Your task to perform on an android device: change timer sound Image 0: 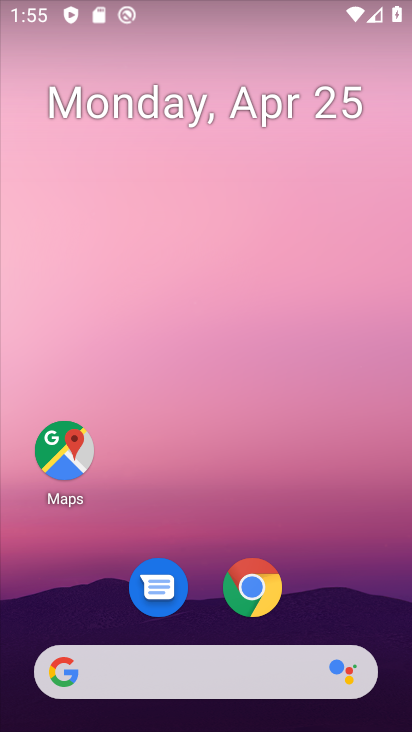
Step 0: drag from (330, 600) to (267, 81)
Your task to perform on an android device: change timer sound Image 1: 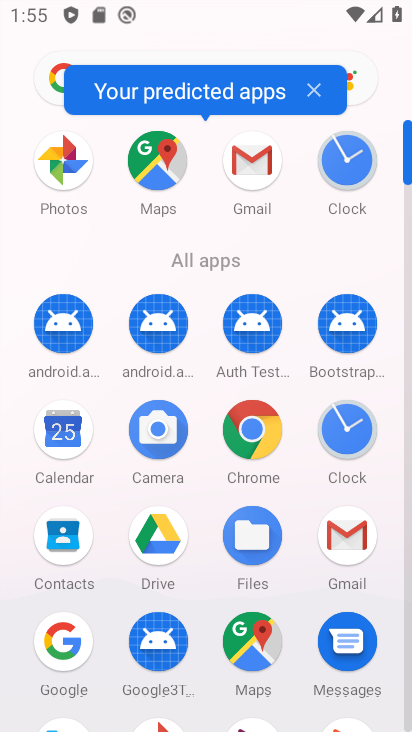
Step 1: click (355, 424)
Your task to perform on an android device: change timer sound Image 2: 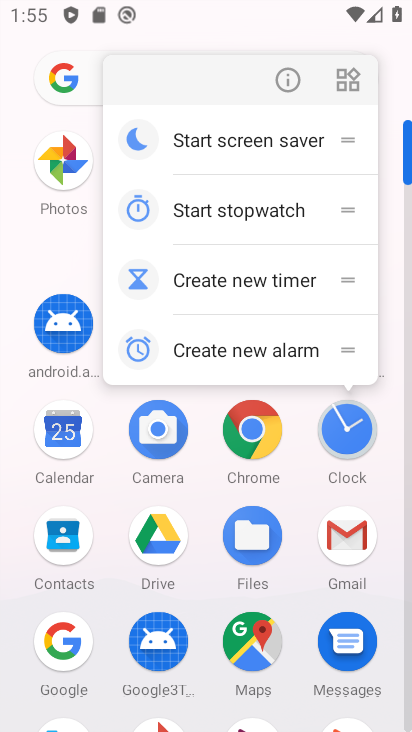
Step 2: click (361, 411)
Your task to perform on an android device: change timer sound Image 3: 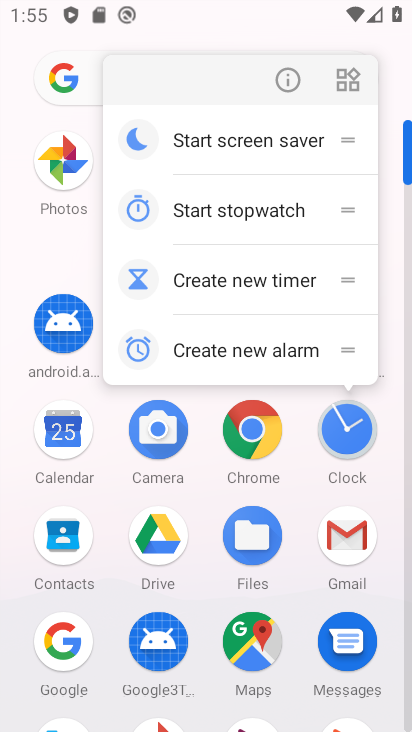
Step 3: click (352, 423)
Your task to perform on an android device: change timer sound Image 4: 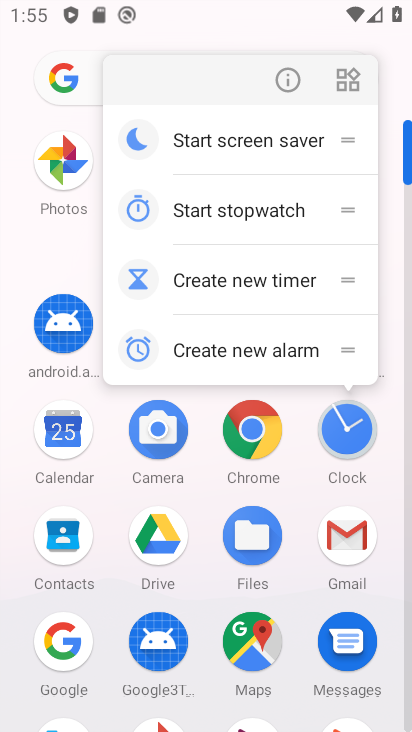
Step 4: click (347, 436)
Your task to perform on an android device: change timer sound Image 5: 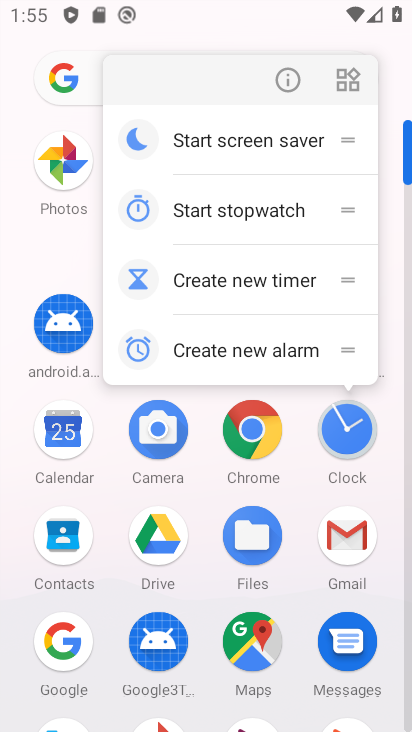
Step 5: click (387, 496)
Your task to perform on an android device: change timer sound Image 6: 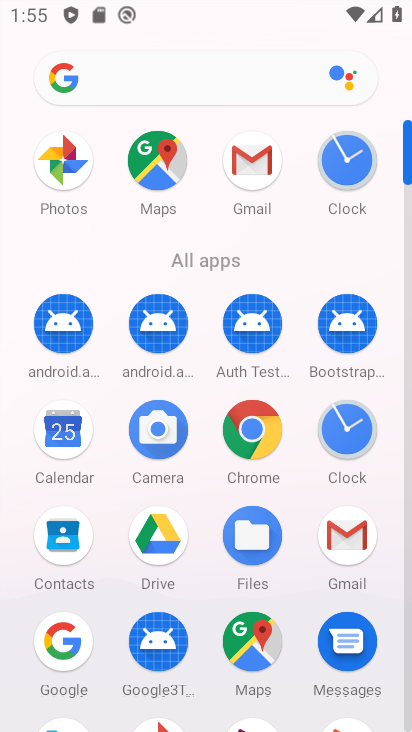
Step 6: click (354, 429)
Your task to perform on an android device: change timer sound Image 7: 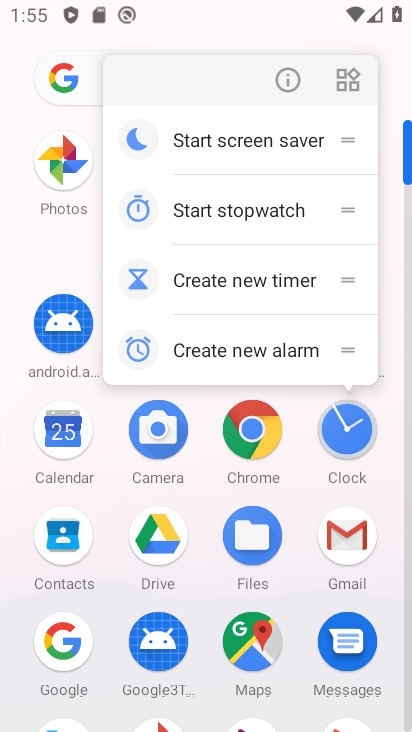
Step 7: click (367, 529)
Your task to perform on an android device: change timer sound Image 8: 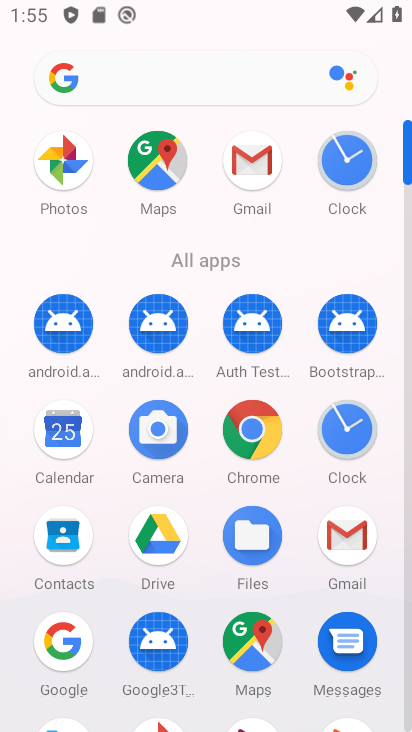
Step 8: click (350, 437)
Your task to perform on an android device: change timer sound Image 9: 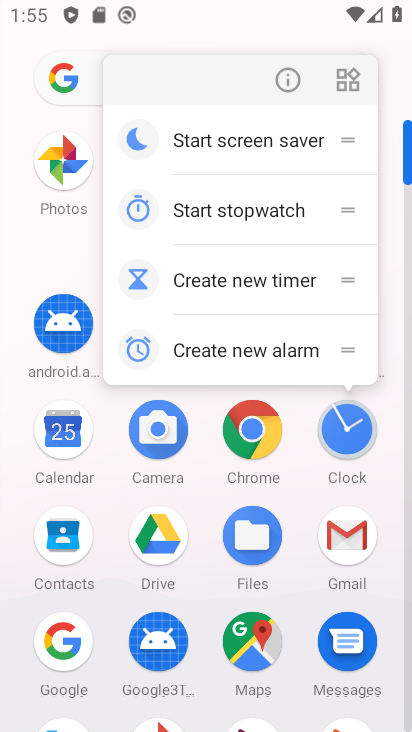
Step 9: click (389, 490)
Your task to perform on an android device: change timer sound Image 10: 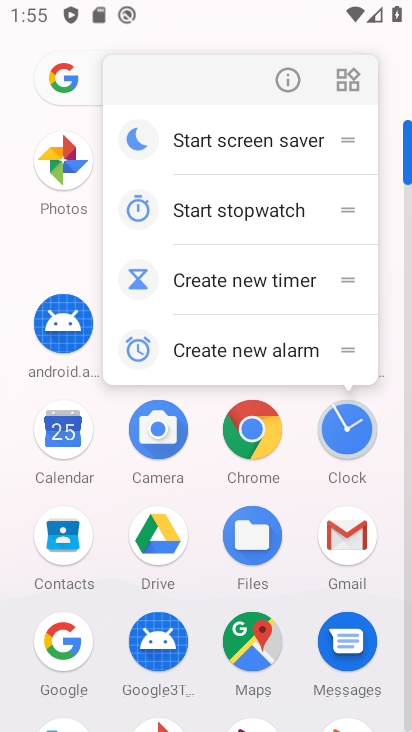
Step 10: click (346, 428)
Your task to perform on an android device: change timer sound Image 11: 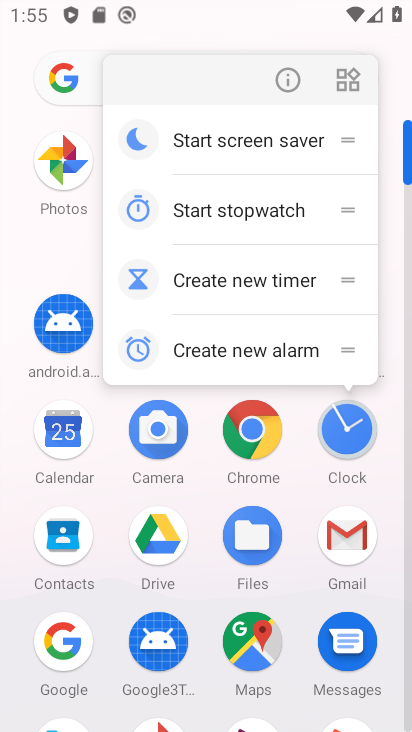
Step 11: click (384, 419)
Your task to perform on an android device: change timer sound Image 12: 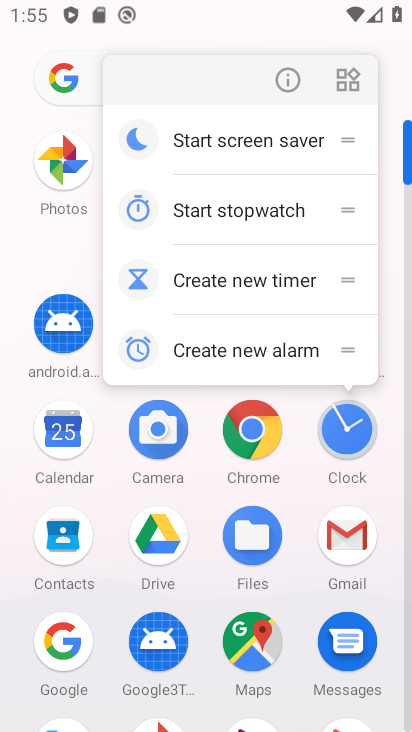
Step 12: click (333, 428)
Your task to perform on an android device: change timer sound Image 13: 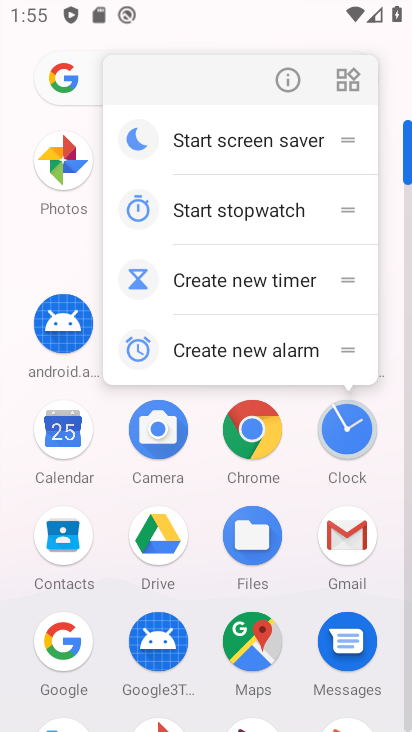
Step 13: click (381, 477)
Your task to perform on an android device: change timer sound Image 14: 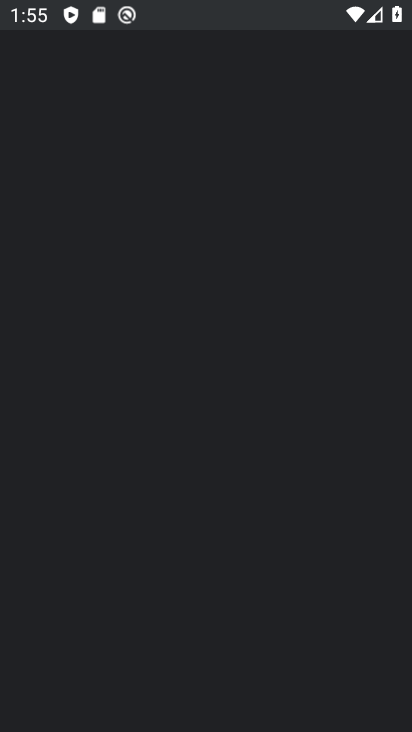
Step 14: click (349, 436)
Your task to perform on an android device: change timer sound Image 15: 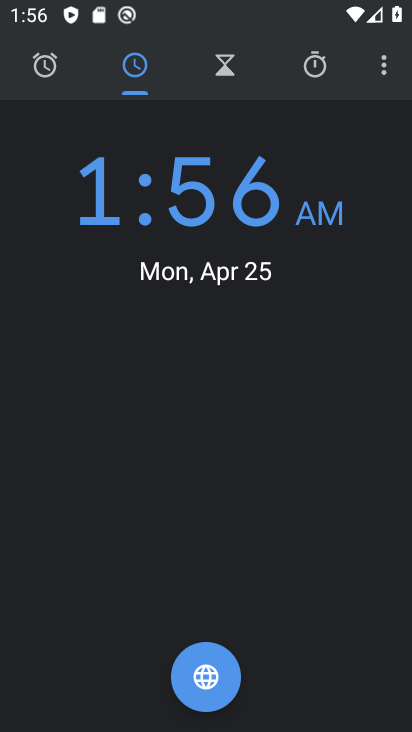
Step 15: click (388, 66)
Your task to perform on an android device: change timer sound Image 16: 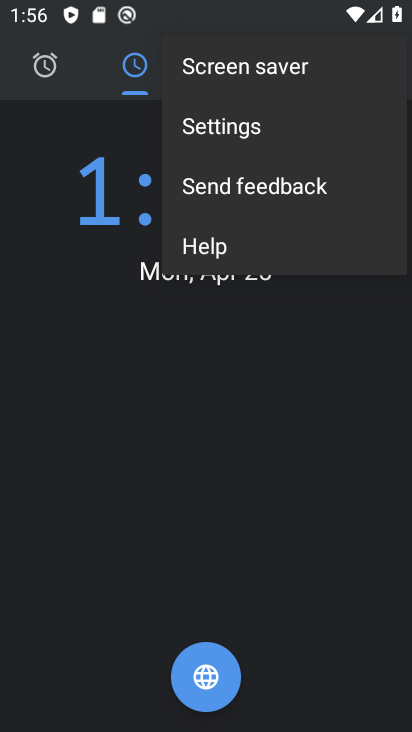
Step 16: click (246, 130)
Your task to perform on an android device: change timer sound Image 17: 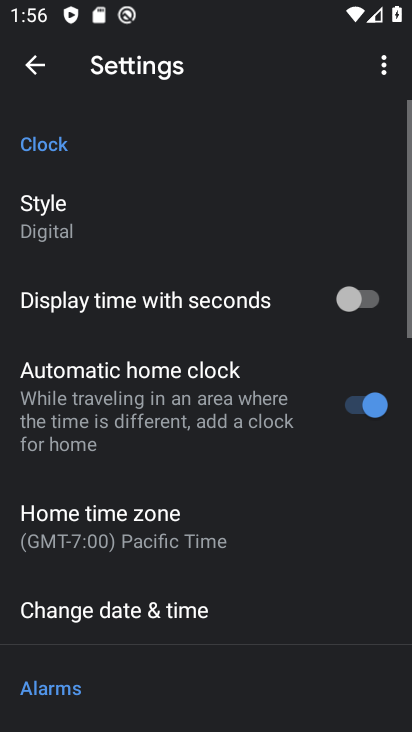
Step 17: drag from (228, 514) to (226, 63)
Your task to perform on an android device: change timer sound Image 18: 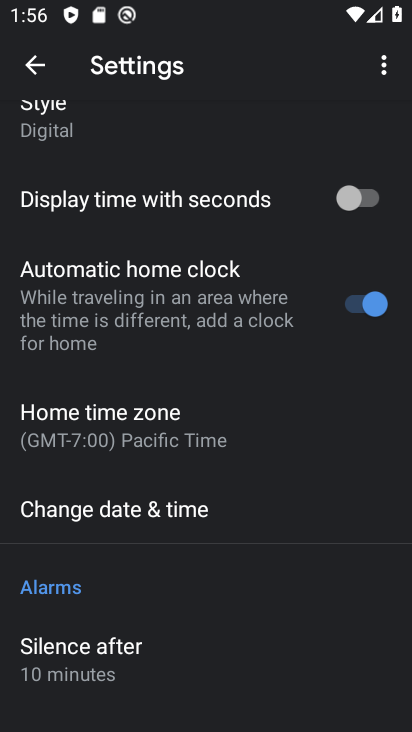
Step 18: drag from (235, 463) to (281, 108)
Your task to perform on an android device: change timer sound Image 19: 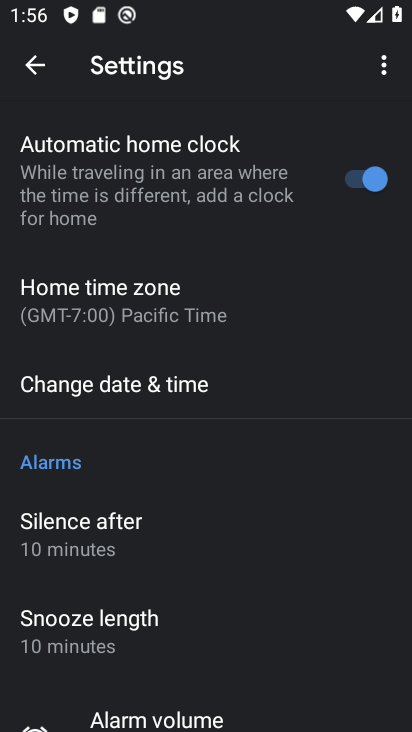
Step 19: drag from (256, 415) to (300, 166)
Your task to perform on an android device: change timer sound Image 20: 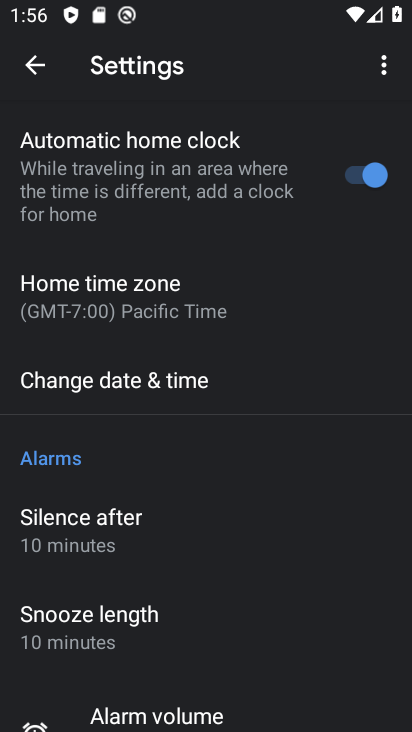
Step 20: drag from (254, 586) to (298, 142)
Your task to perform on an android device: change timer sound Image 21: 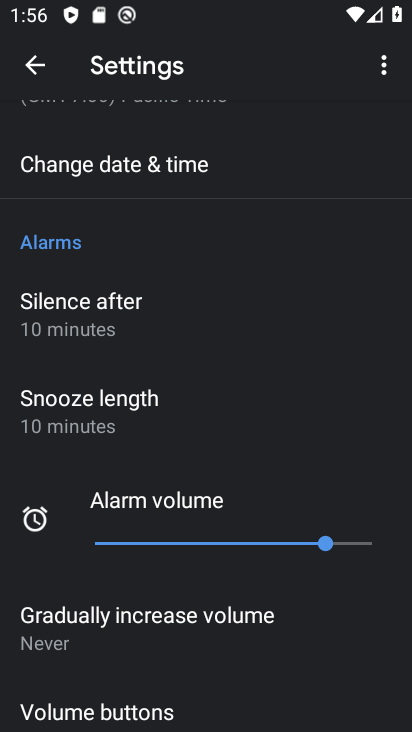
Step 21: drag from (242, 590) to (287, 155)
Your task to perform on an android device: change timer sound Image 22: 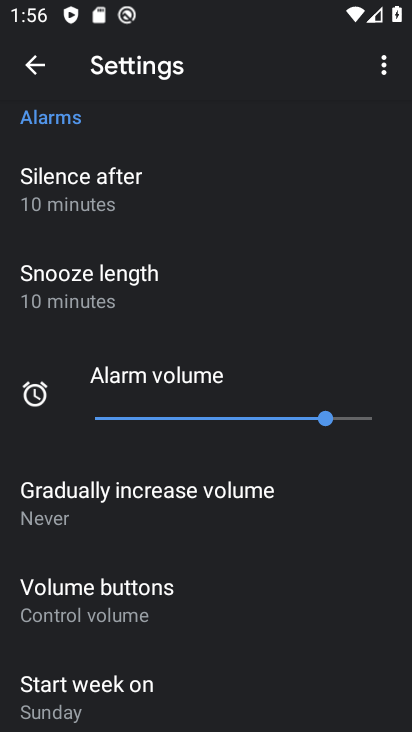
Step 22: drag from (210, 671) to (288, 91)
Your task to perform on an android device: change timer sound Image 23: 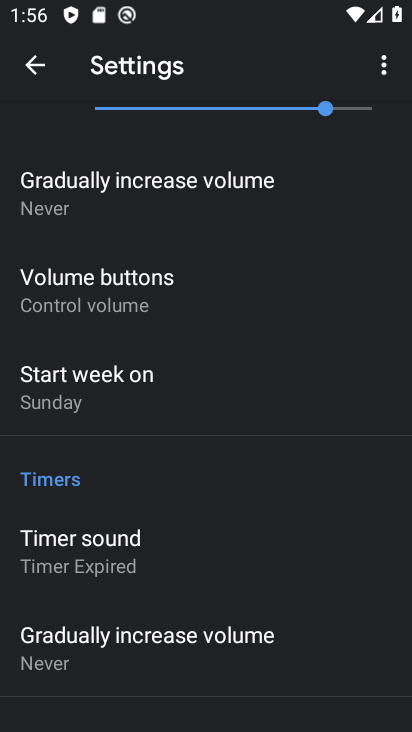
Step 23: drag from (217, 628) to (269, 319)
Your task to perform on an android device: change timer sound Image 24: 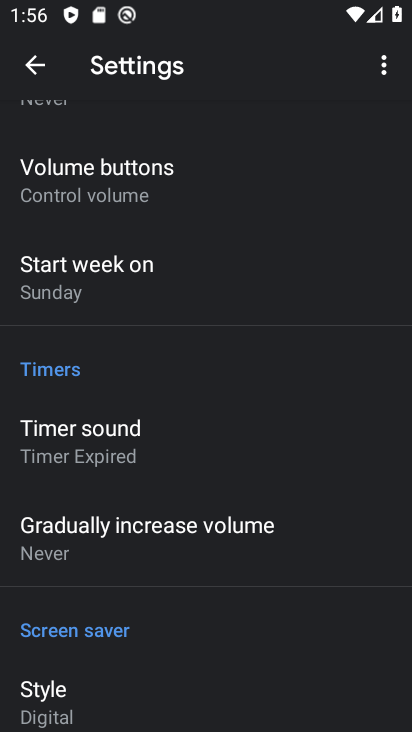
Step 24: click (93, 429)
Your task to perform on an android device: change timer sound Image 25: 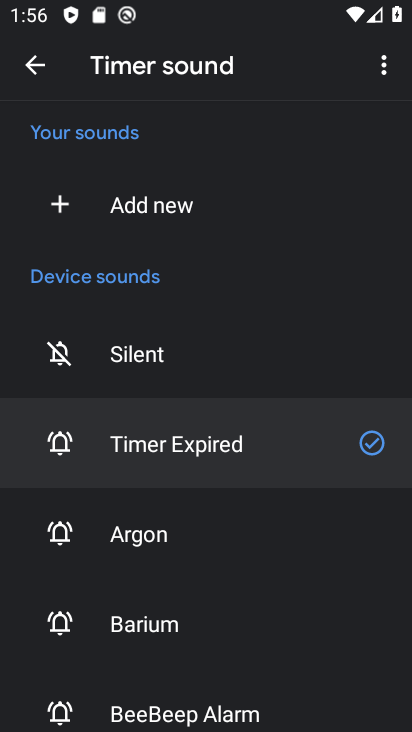
Step 25: click (234, 515)
Your task to perform on an android device: change timer sound Image 26: 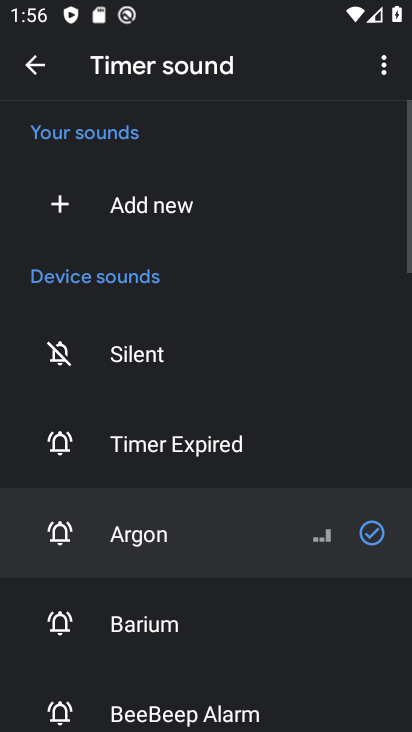
Step 26: task complete